Your task to perform on an android device: Open privacy settings Image 0: 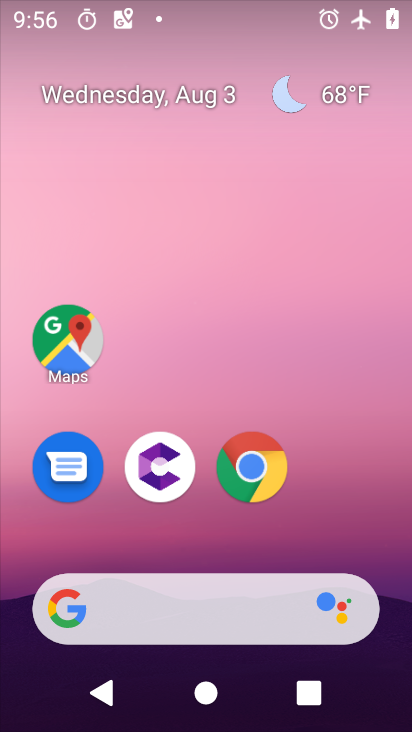
Step 0: drag from (329, 376) to (310, 125)
Your task to perform on an android device: Open privacy settings Image 1: 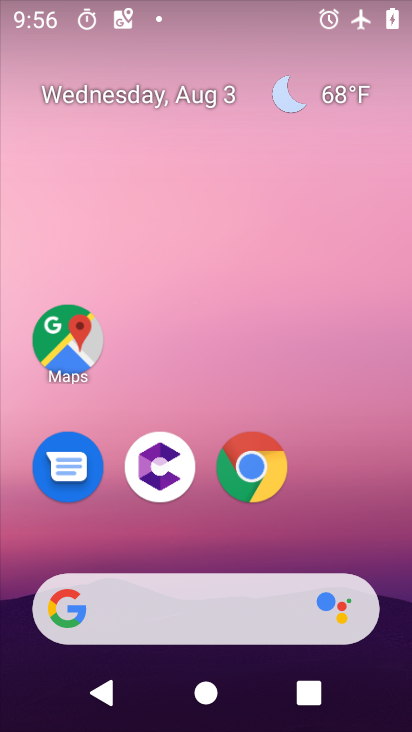
Step 1: drag from (369, 501) to (302, 135)
Your task to perform on an android device: Open privacy settings Image 2: 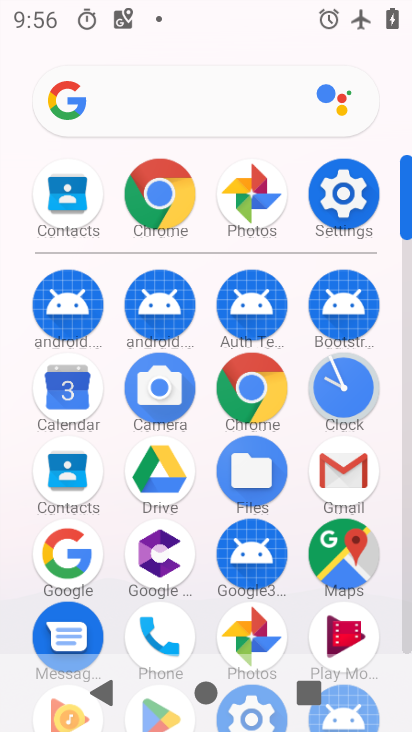
Step 2: click (362, 200)
Your task to perform on an android device: Open privacy settings Image 3: 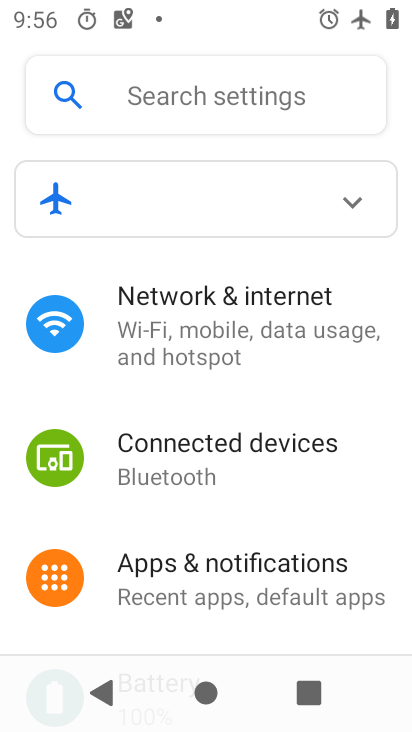
Step 3: drag from (365, 512) to (393, 68)
Your task to perform on an android device: Open privacy settings Image 4: 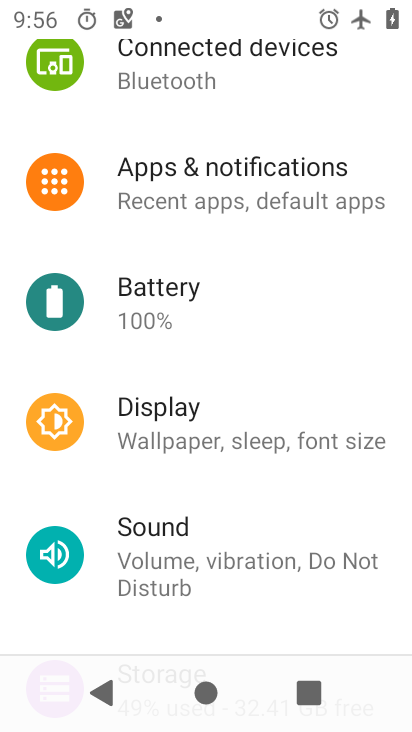
Step 4: drag from (329, 513) to (343, 88)
Your task to perform on an android device: Open privacy settings Image 5: 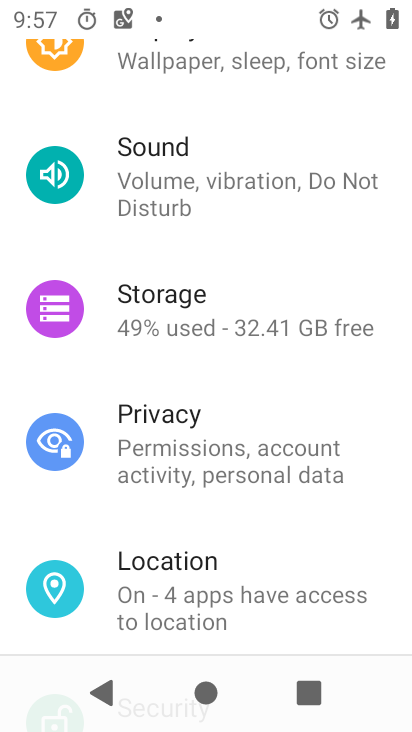
Step 5: click (201, 436)
Your task to perform on an android device: Open privacy settings Image 6: 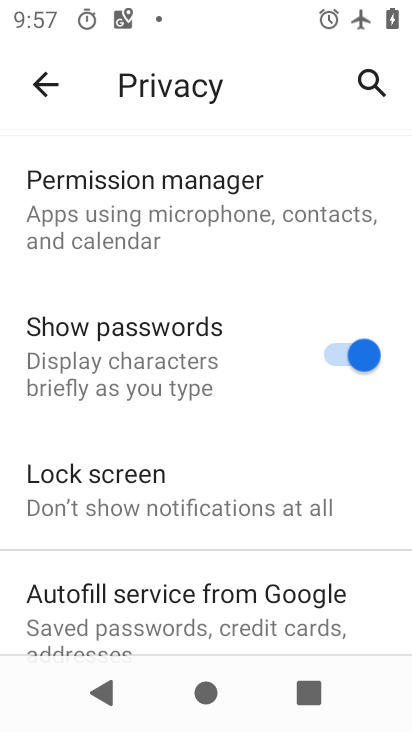
Step 6: task complete